Your task to perform on an android device: Go to Google Image 0: 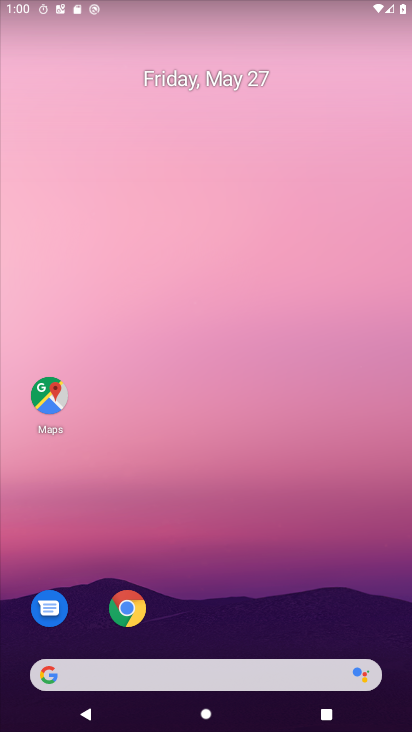
Step 0: drag from (377, 568) to (340, 321)
Your task to perform on an android device: Go to Google Image 1: 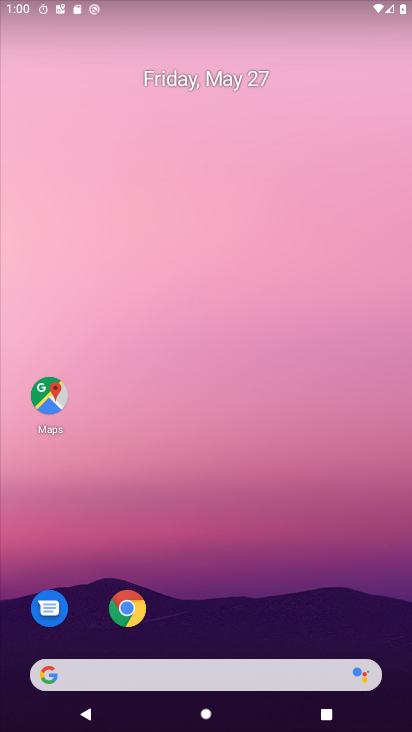
Step 1: drag from (396, 691) to (315, 147)
Your task to perform on an android device: Go to Google Image 2: 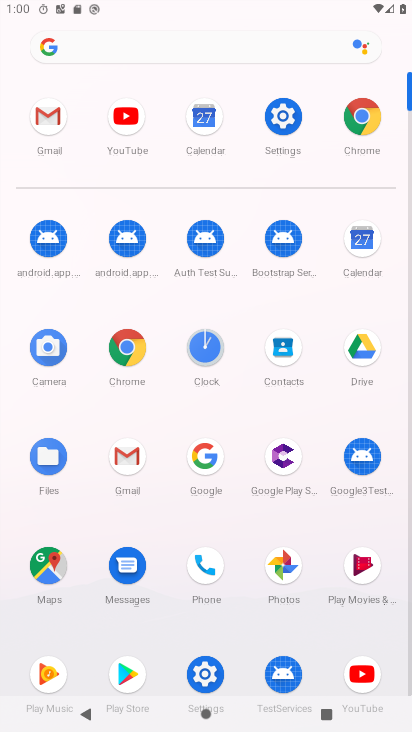
Step 2: click (219, 455)
Your task to perform on an android device: Go to Google Image 3: 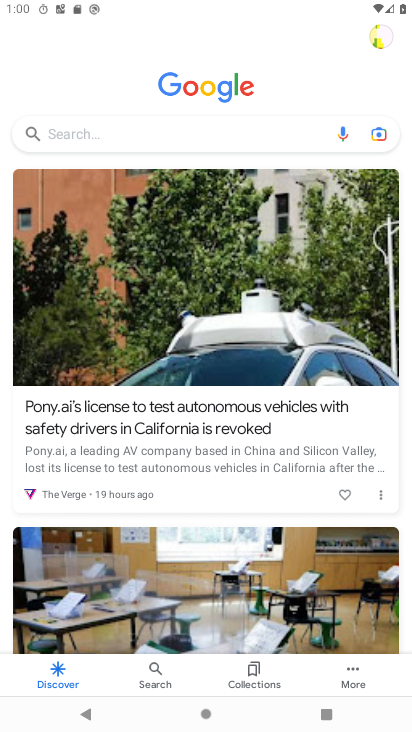
Step 3: task complete